Your task to perform on an android device: Open location settings Image 0: 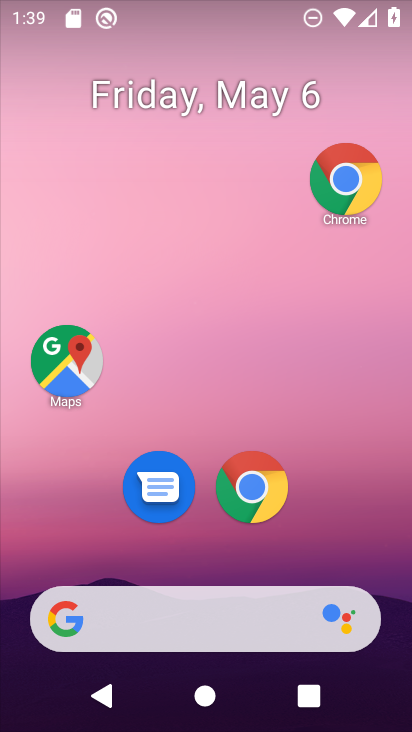
Step 0: drag from (380, 516) to (269, 134)
Your task to perform on an android device: Open location settings Image 1: 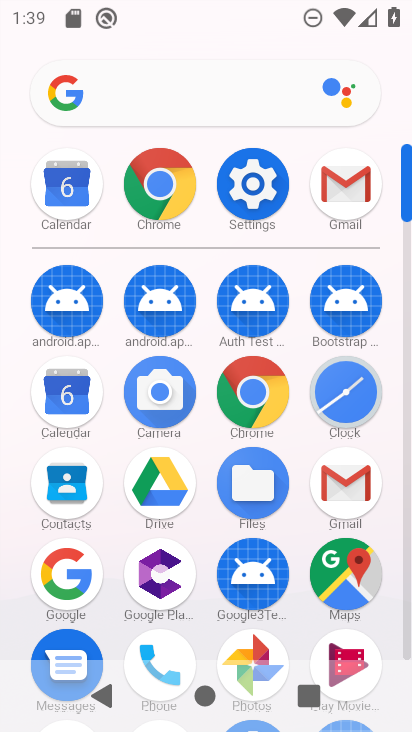
Step 1: click (272, 196)
Your task to perform on an android device: Open location settings Image 2: 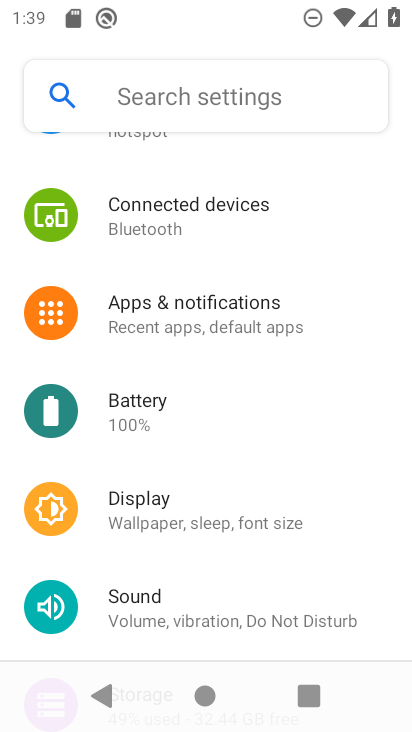
Step 2: drag from (175, 553) to (223, 338)
Your task to perform on an android device: Open location settings Image 3: 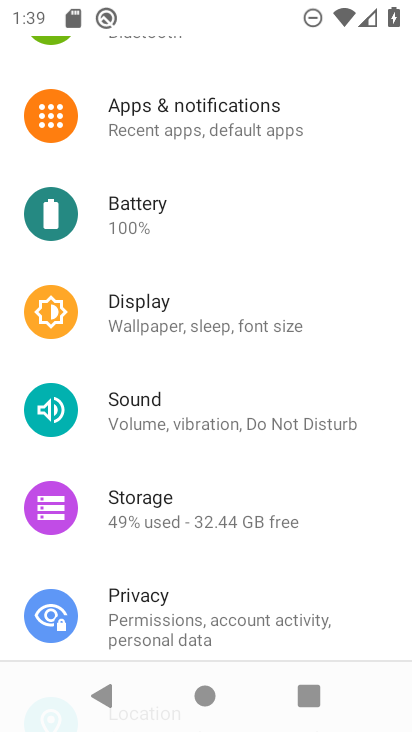
Step 3: drag from (191, 585) to (233, 329)
Your task to perform on an android device: Open location settings Image 4: 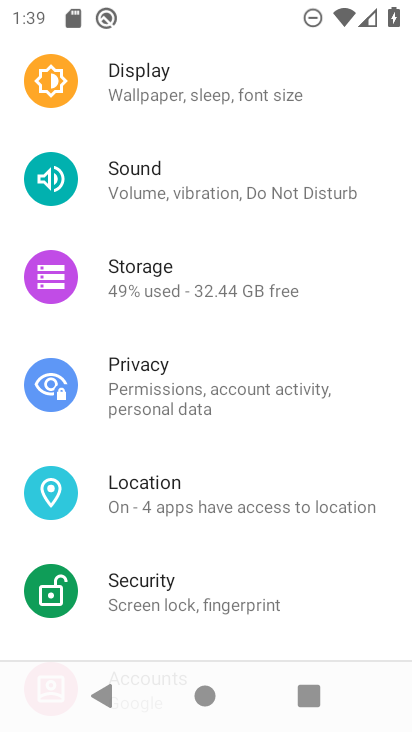
Step 4: click (213, 486)
Your task to perform on an android device: Open location settings Image 5: 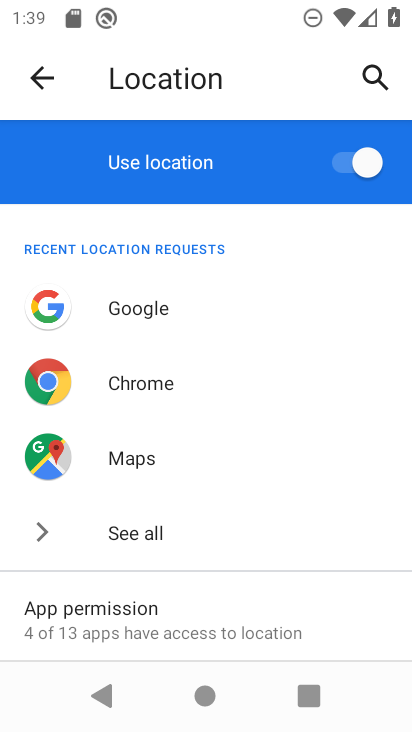
Step 5: task complete